Your task to perform on an android device: open app "LinkedIn" Image 0: 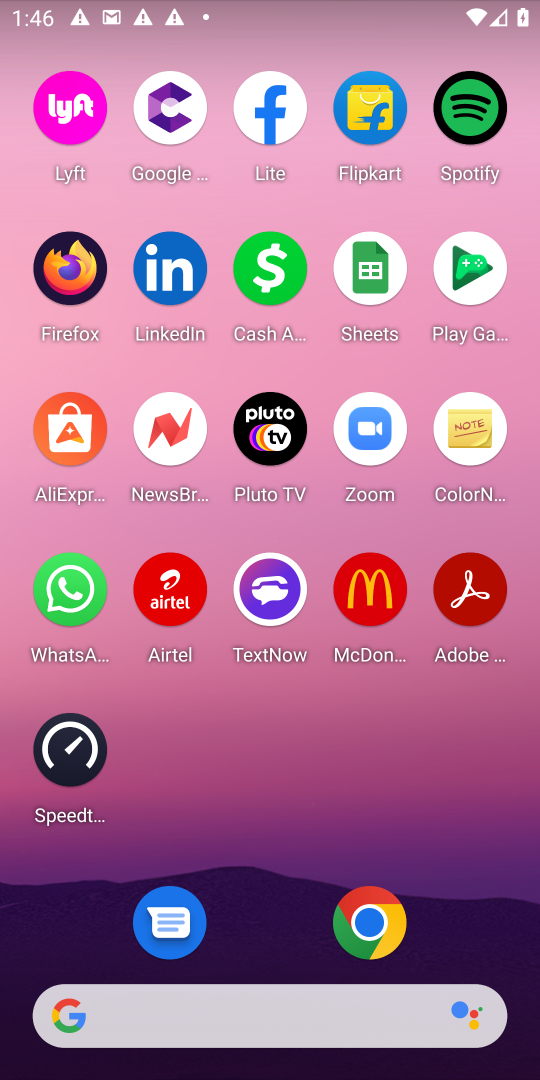
Step 0: press home button
Your task to perform on an android device: open app "LinkedIn" Image 1: 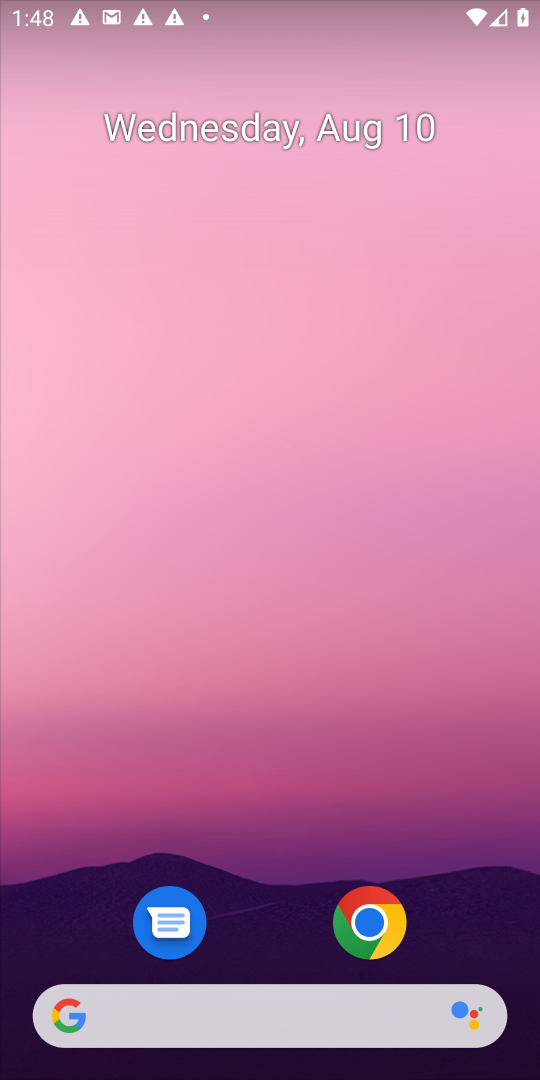
Step 1: drag from (242, 471) to (256, 163)
Your task to perform on an android device: open app "LinkedIn" Image 2: 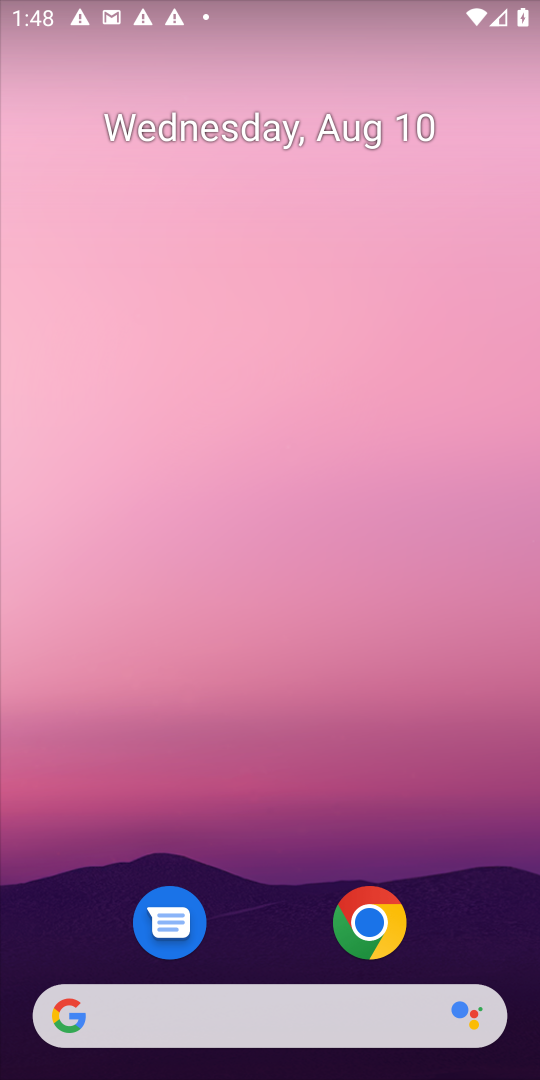
Step 2: drag from (257, 861) to (309, 8)
Your task to perform on an android device: open app "LinkedIn" Image 3: 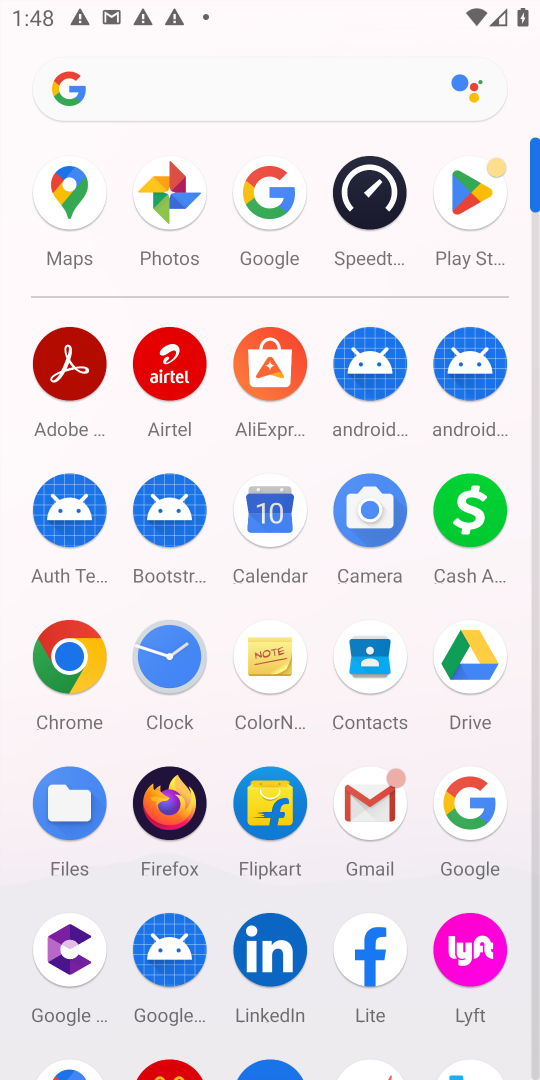
Step 3: click (471, 236)
Your task to perform on an android device: open app "LinkedIn" Image 4: 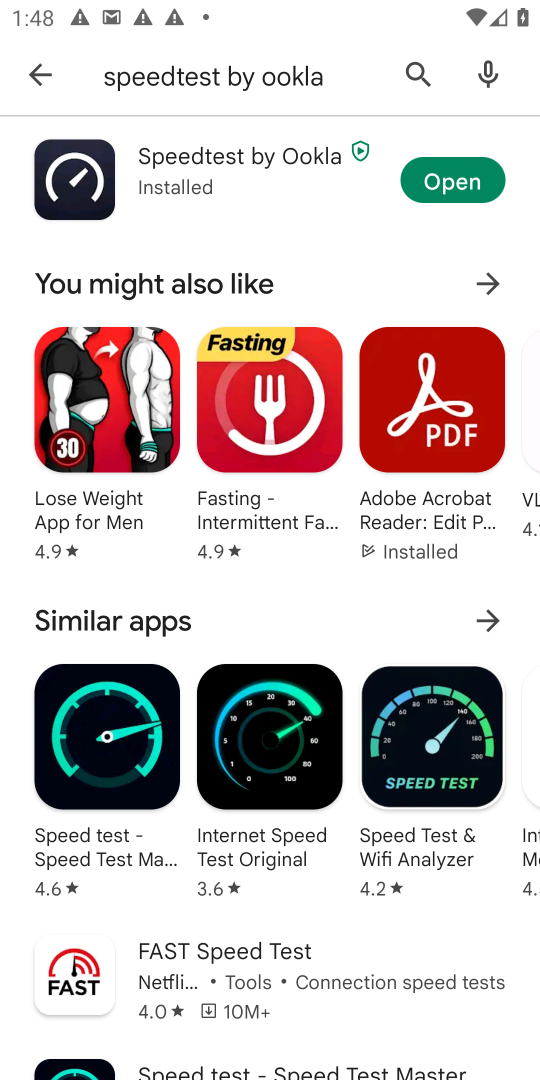
Step 4: click (31, 67)
Your task to perform on an android device: open app "LinkedIn" Image 5: 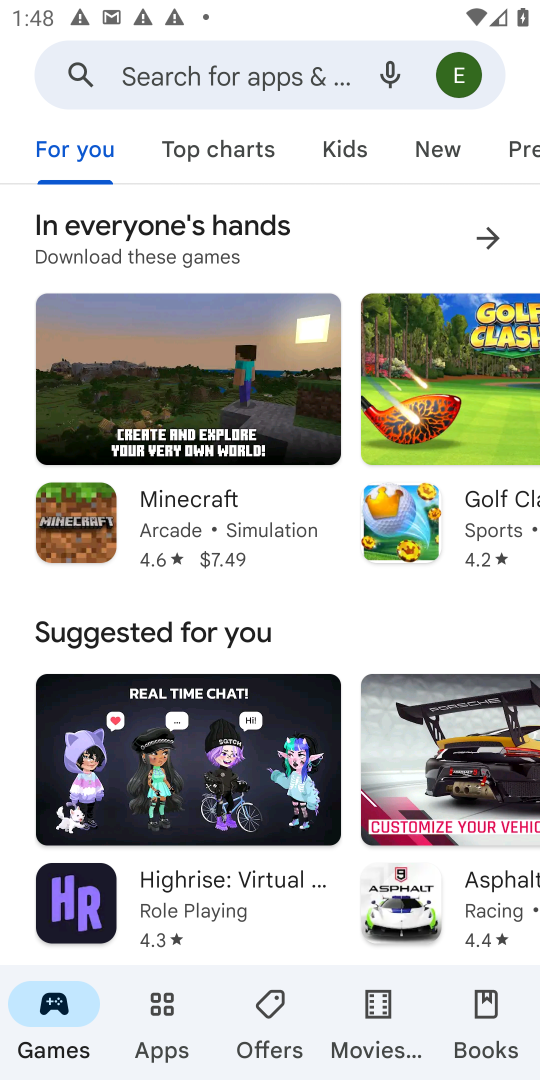
Step 5: click (172, 66)
Your task to perform on an android device: open app "LinkedIn" Image 6: 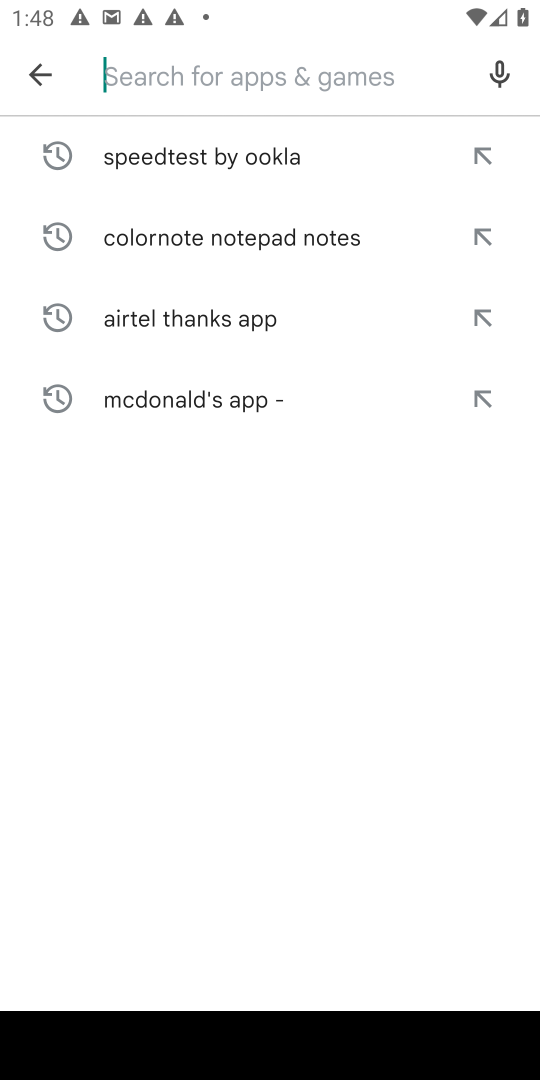
Step 6: type "LinkedIn"
Your task to perform on an android device: open app "LinkedIn" Image 7: 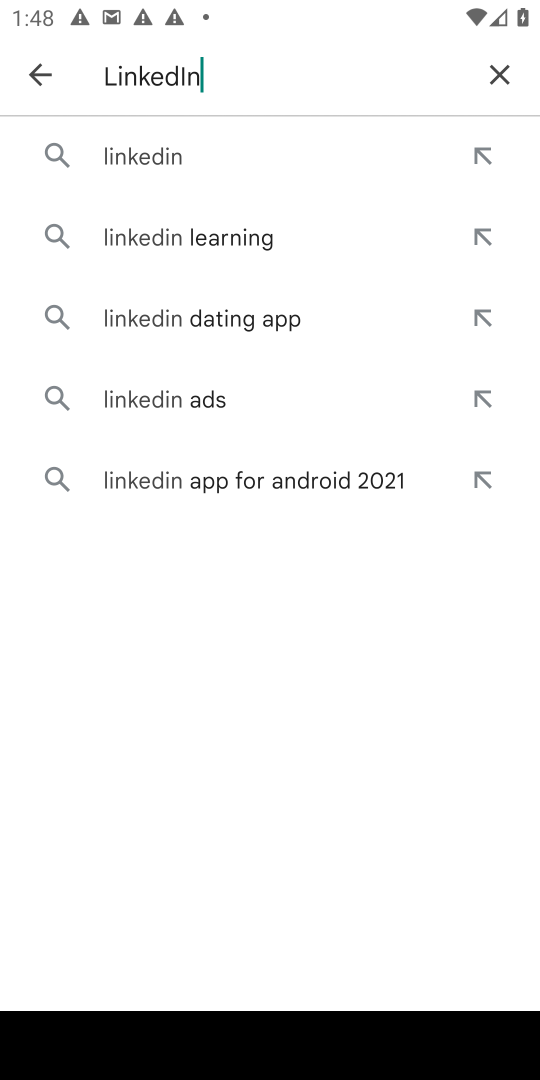
Step 7: click (167, 167)
Your task to perform on an android device: open app "LinkedIn" Image 8: 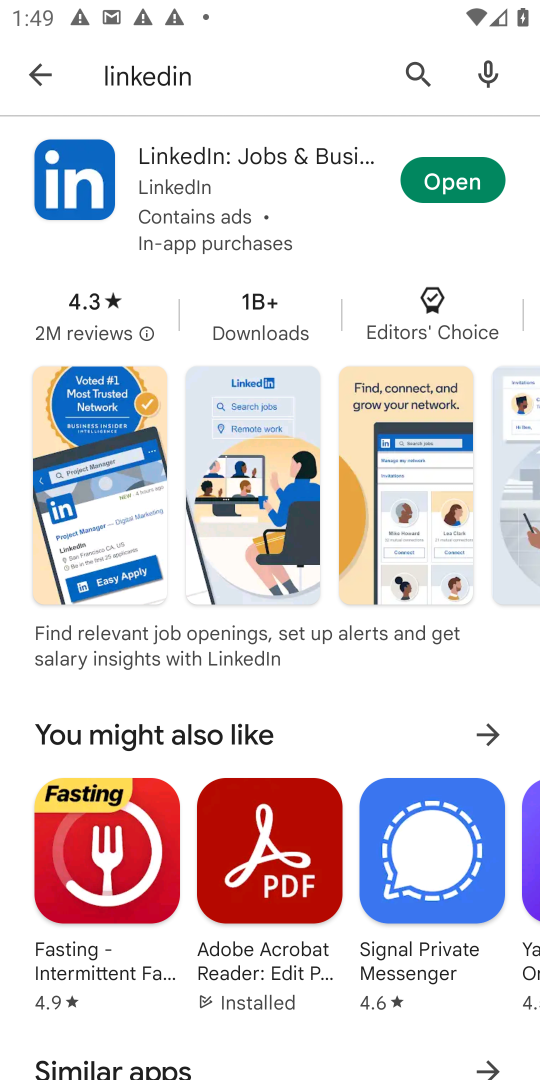
Step 8: click (438, 176)
Your task to perform on an android device: open app "LinkedIn" Image 9: 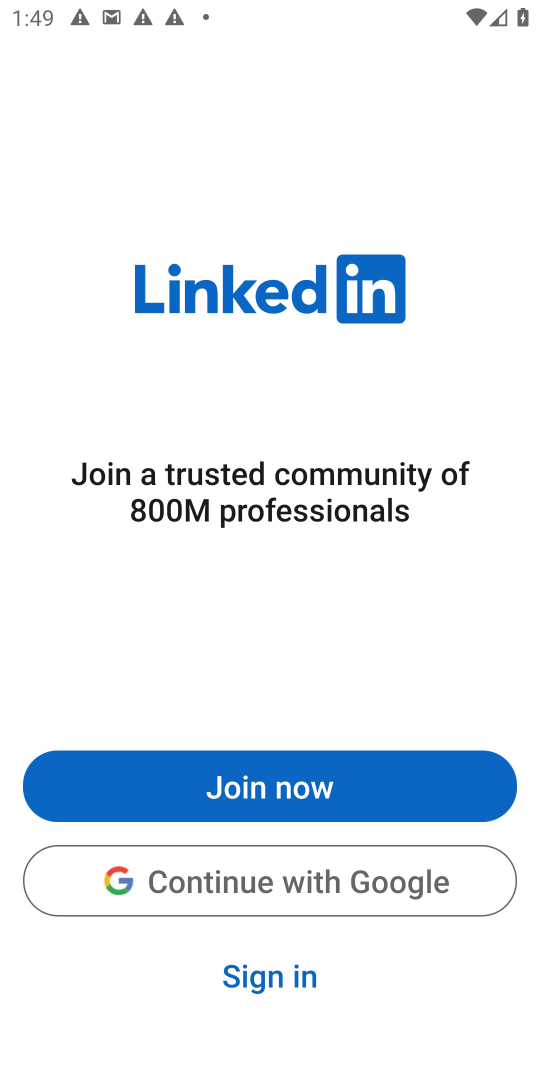
Step 9: task complete